Your task to perform on an android device: see tabs open on other devices in the chrome app Image 0: 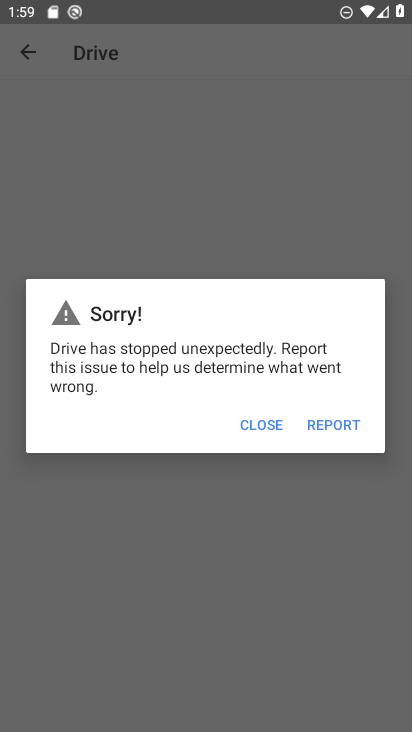
Step 0: press home button
Your task to perform on an android device: see tabs open on other devices in the chrome app Image 1: 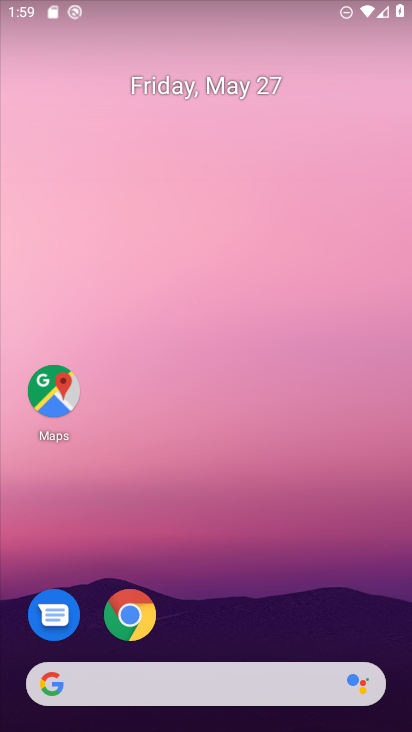
Step 1: drag from (260, 604) to (213, 218)
Your task to perform on an android device: see tabs open on other devices in the chrome app Image 2: 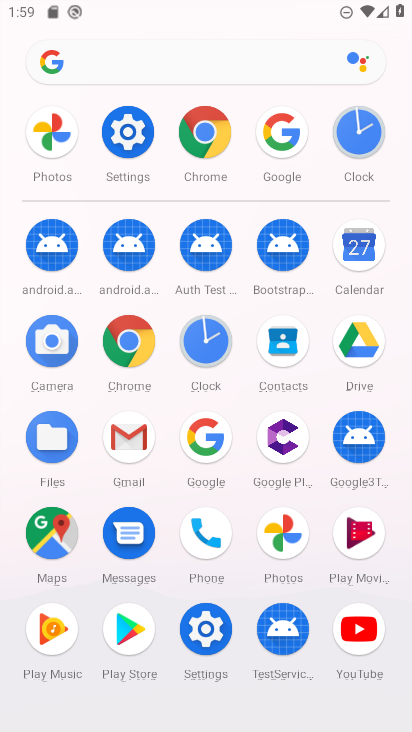
Step 2: click (126, 345)
Your task to perform on an android device: see tabs open on other devices in the chrome app Image 3: 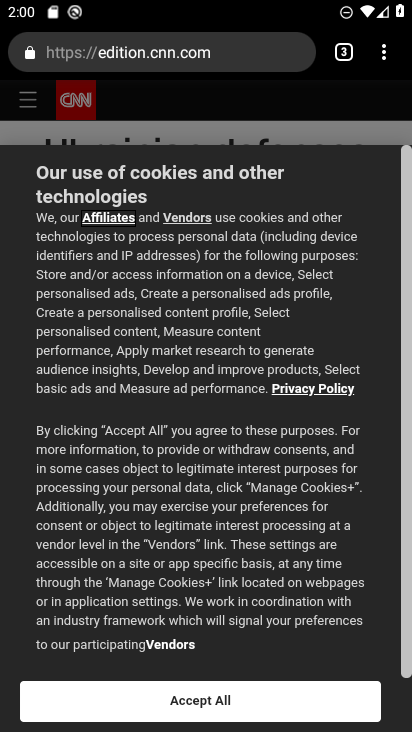
Step 3: click (384, 58)
Your task to perform on an android device: see tabs open on other devices in the chrome app Image 4: 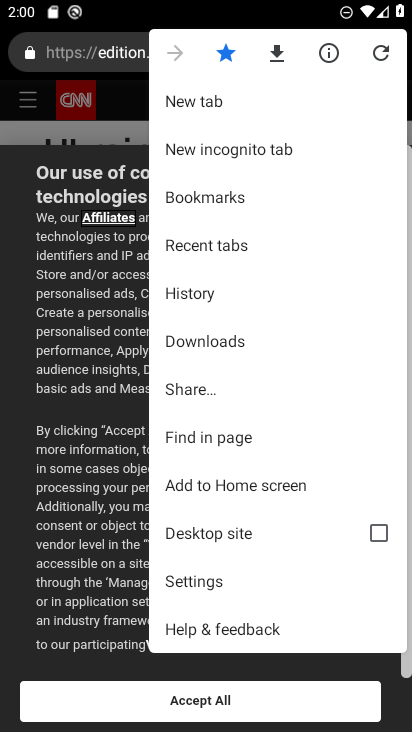
Step 4: click (246, 253)
Your task to perform on an android device: see tabs open on other devices in the chrome app Image 5: 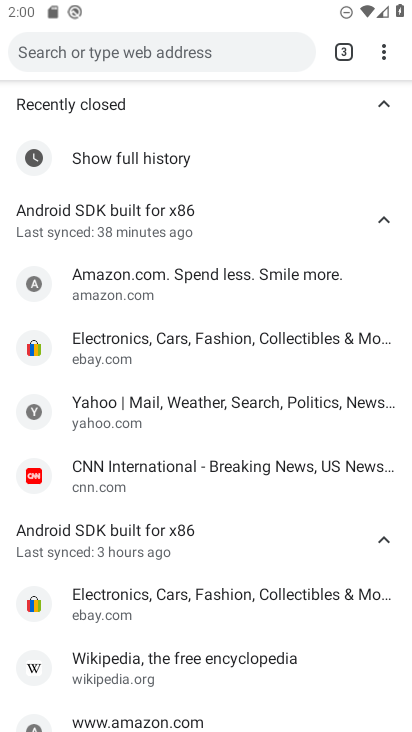
Step 5: task complete